Your task to perform on an android device: Empty the shopping cart on target.com. Search for "dell alienware" on target.com, select the first entry, add it to the cart, then select checkout. Image 0: 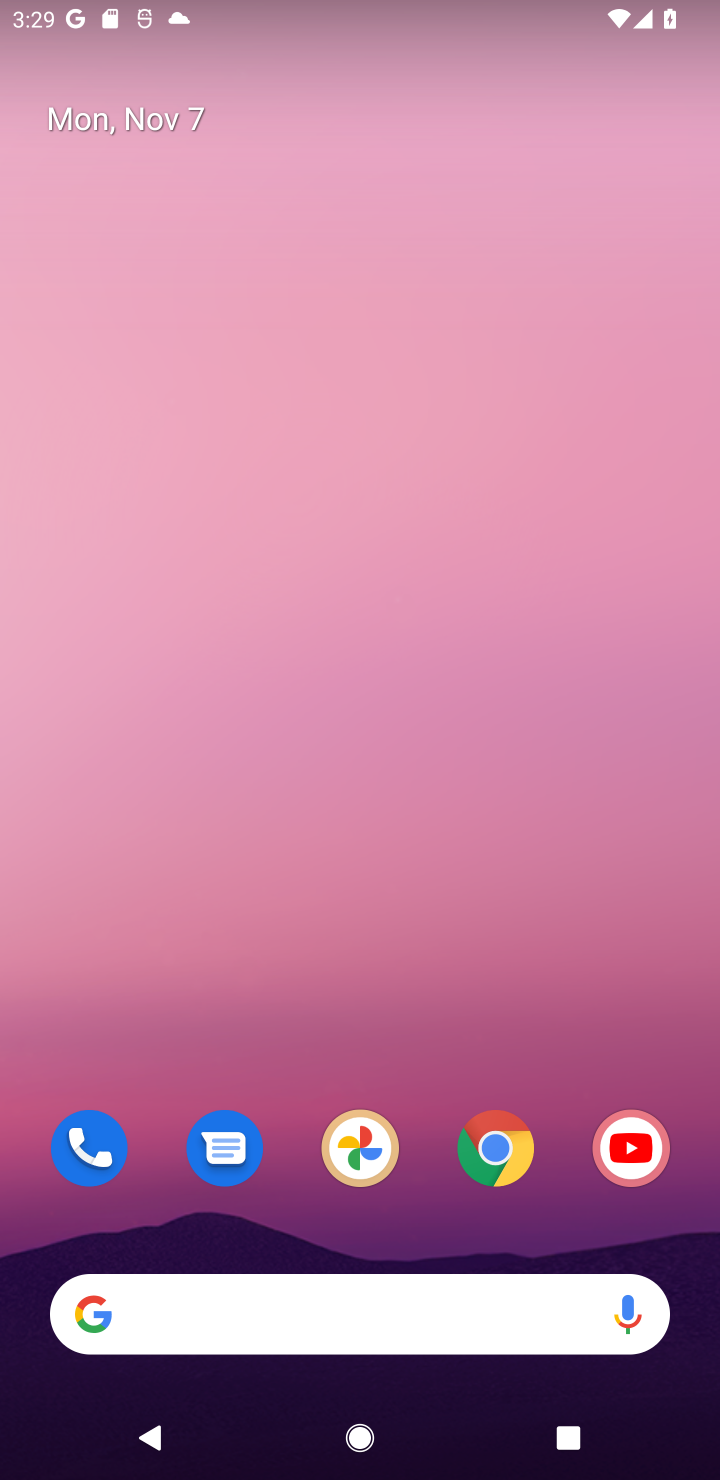
Step 0: drag from (358, 1066) to (402, 170)
Your task to perform on an android device: Empty the shopping cart on target.com. Search for "dell alienware" on target.com, select the first entry, add it to the cart, then select checkout. Image 1: 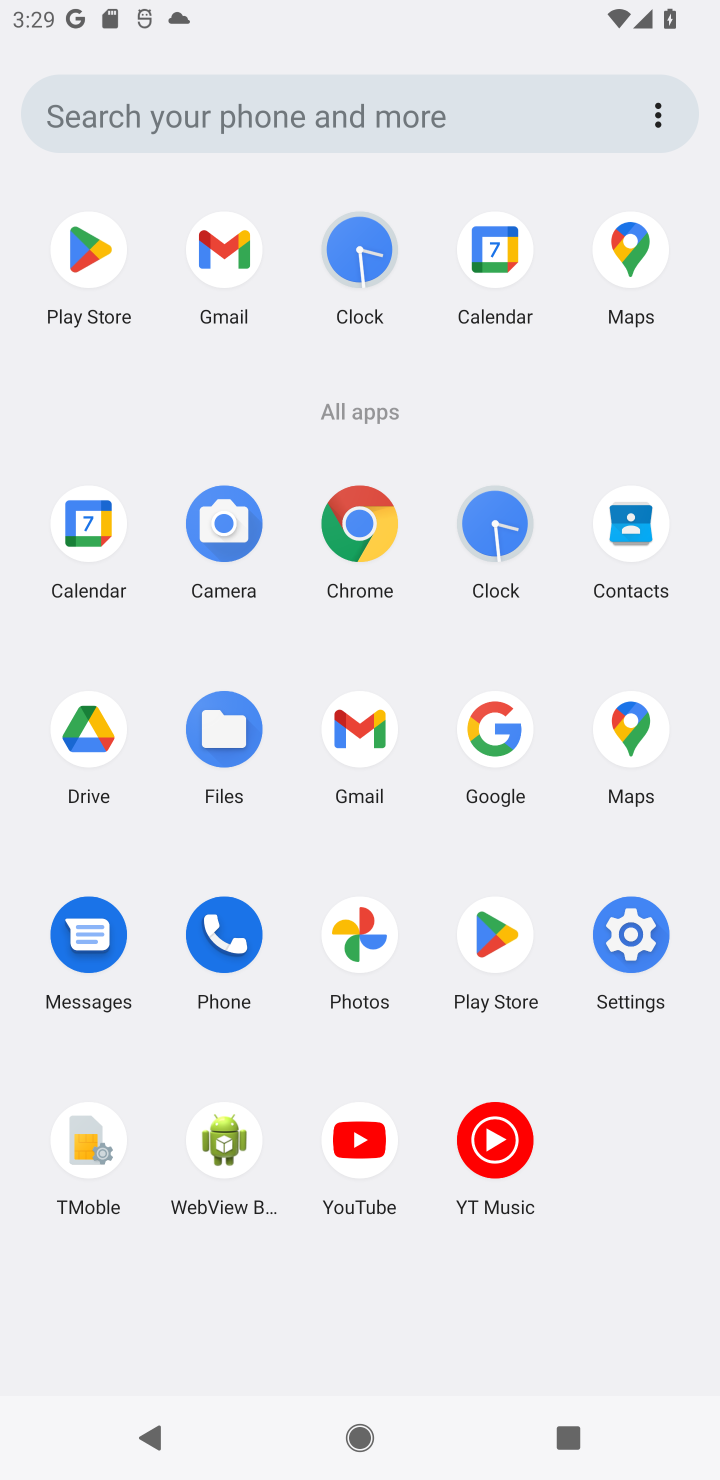
Step 1: click (374, 537)
Your task to perform on an android device: Empty the shopping cart on target.com. Search for "dell alienware" on target.com, select the first entry, add it to the cart, then select checkout. Image 2: 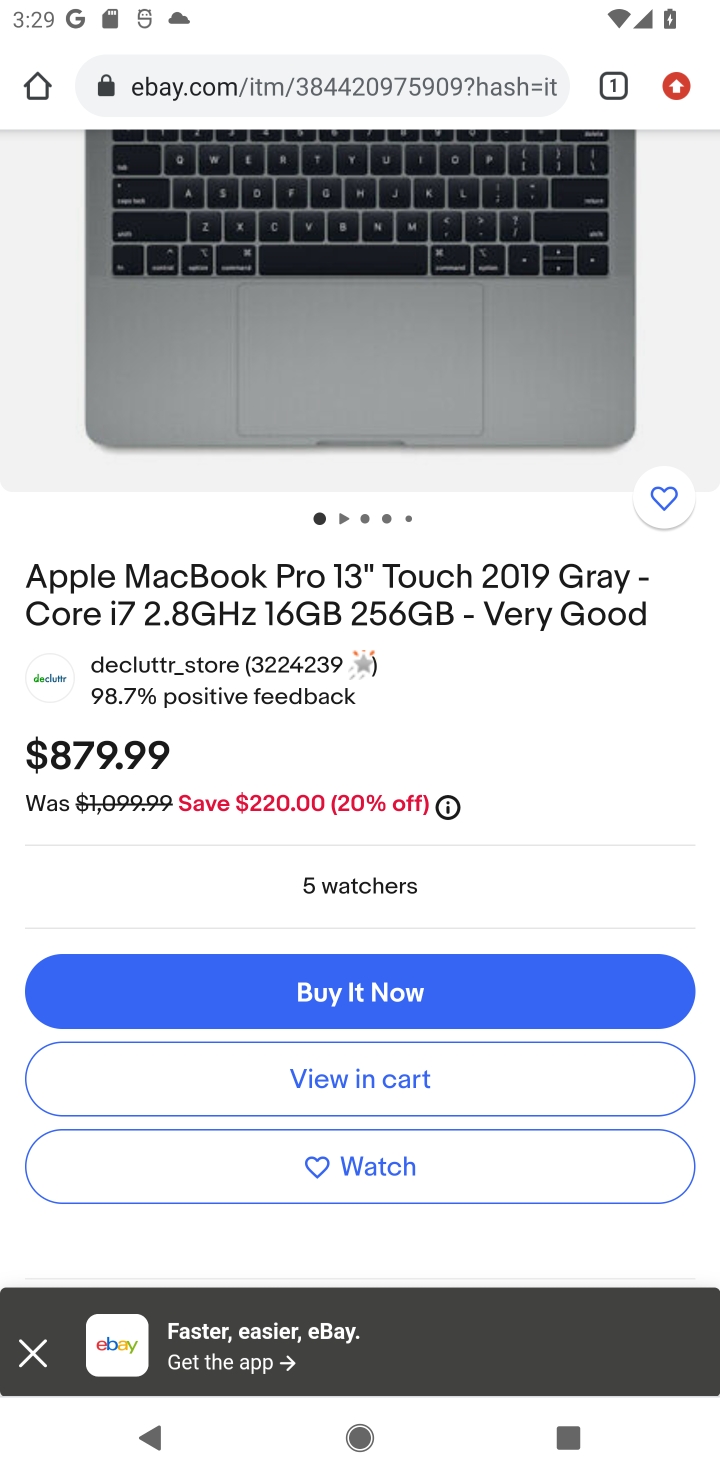
Step 2: click (266, 99)
Your task to perform on an android device: Empty the shopping cart on target.com. Search for "dell alienware" on target.com, select the first entry, add it to the cart, then select checkout. Image 3: 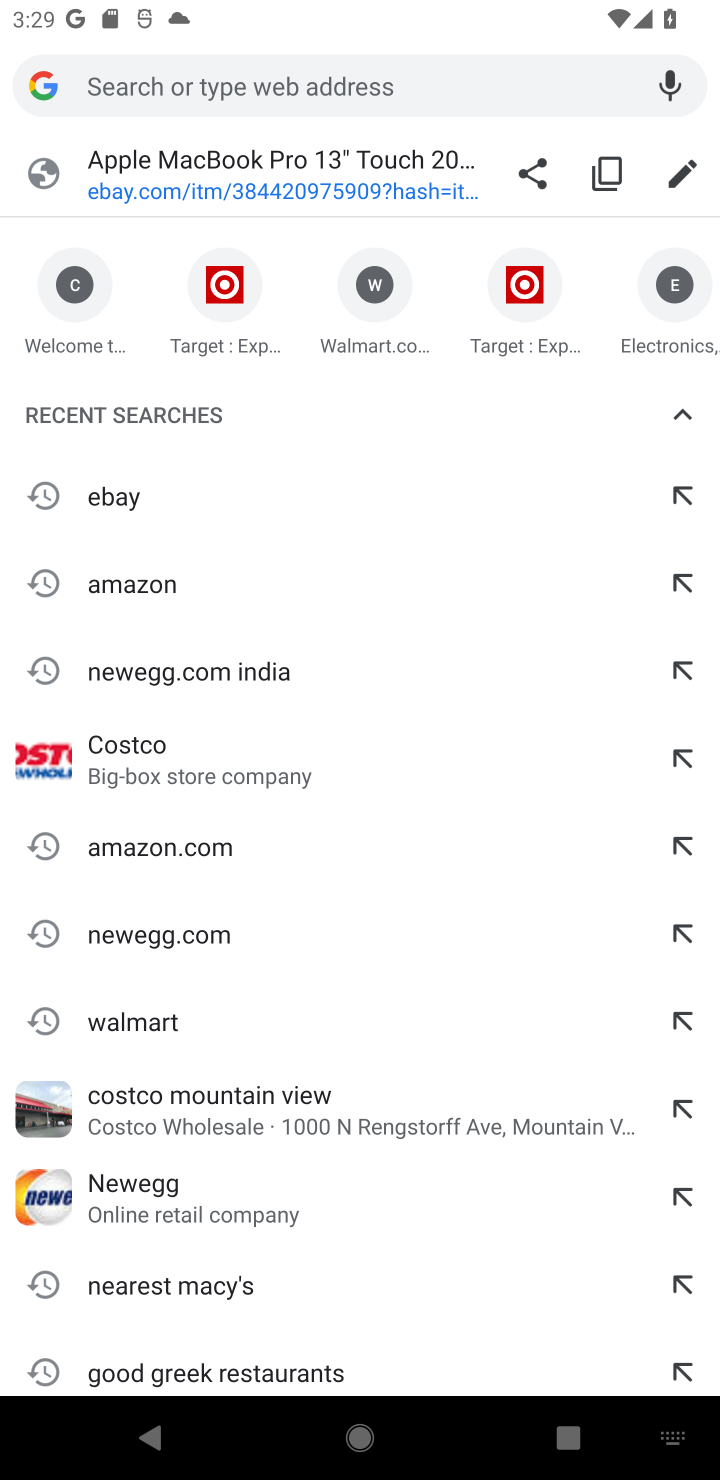
Step 3: type "target.com"
Your task to perform on an android device: Empty the shopping cart on target.com. Search for "dell alienware" on target.com, select the first entry, add it to the cart, then select checkout. Image 4: 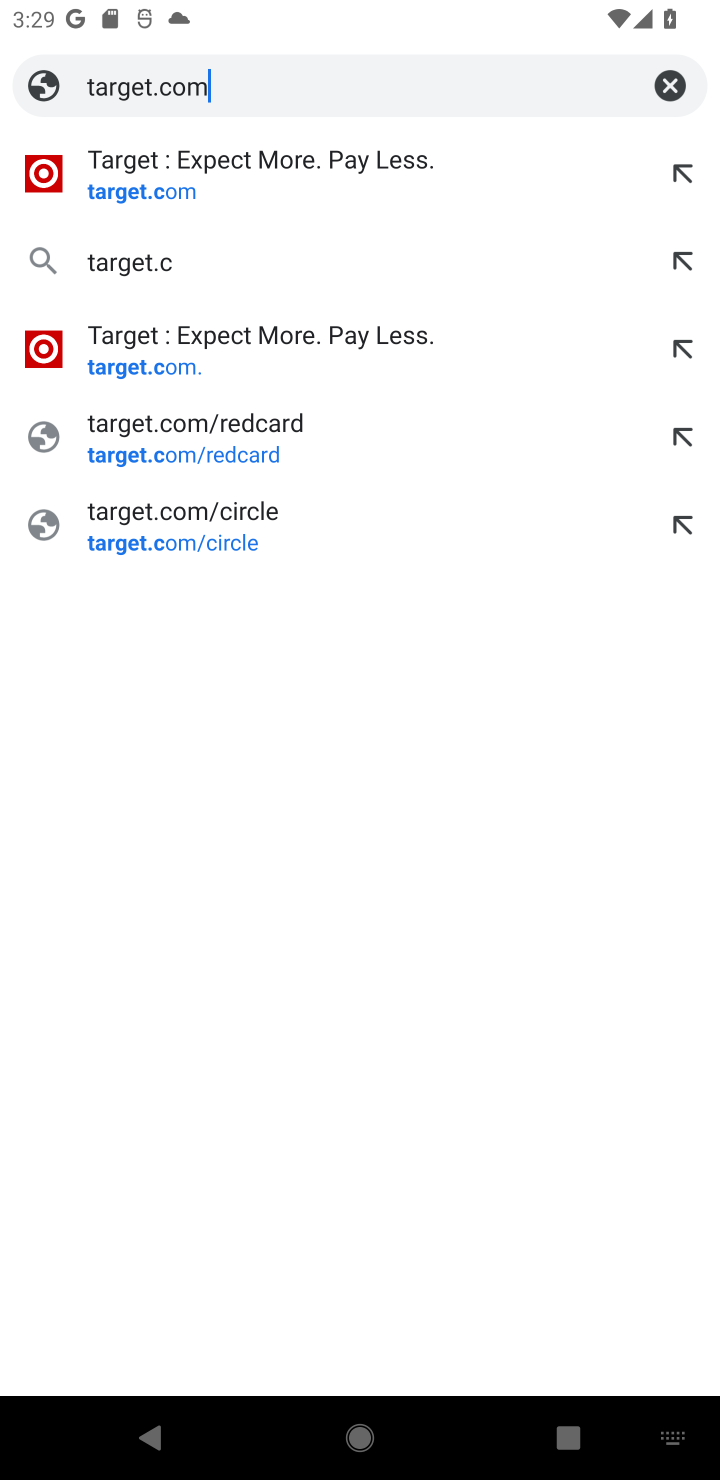
Step 4: press enter
Your task to perform on an android device: Empty the shopping cart on target.com. Search for "dell alienware" on target.com, select the first entry, add it to the cart, then select checkout. Image 5: 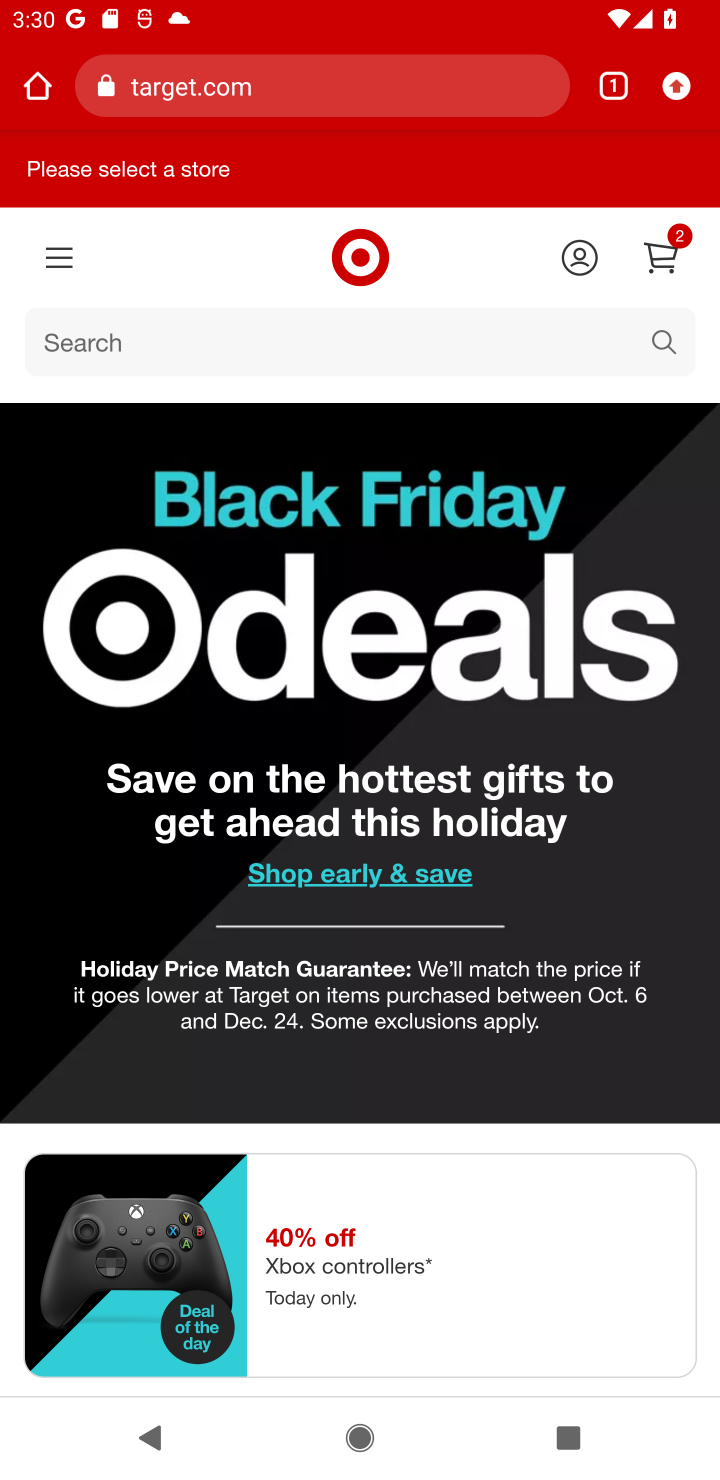
Step 5: click (659, 265)
Your task to perform on an android device: Empty the shopping cart on target.com. Search for "dell alienware" on target.com, select the first entry, add it to the cart, then select checkout. Image 6: 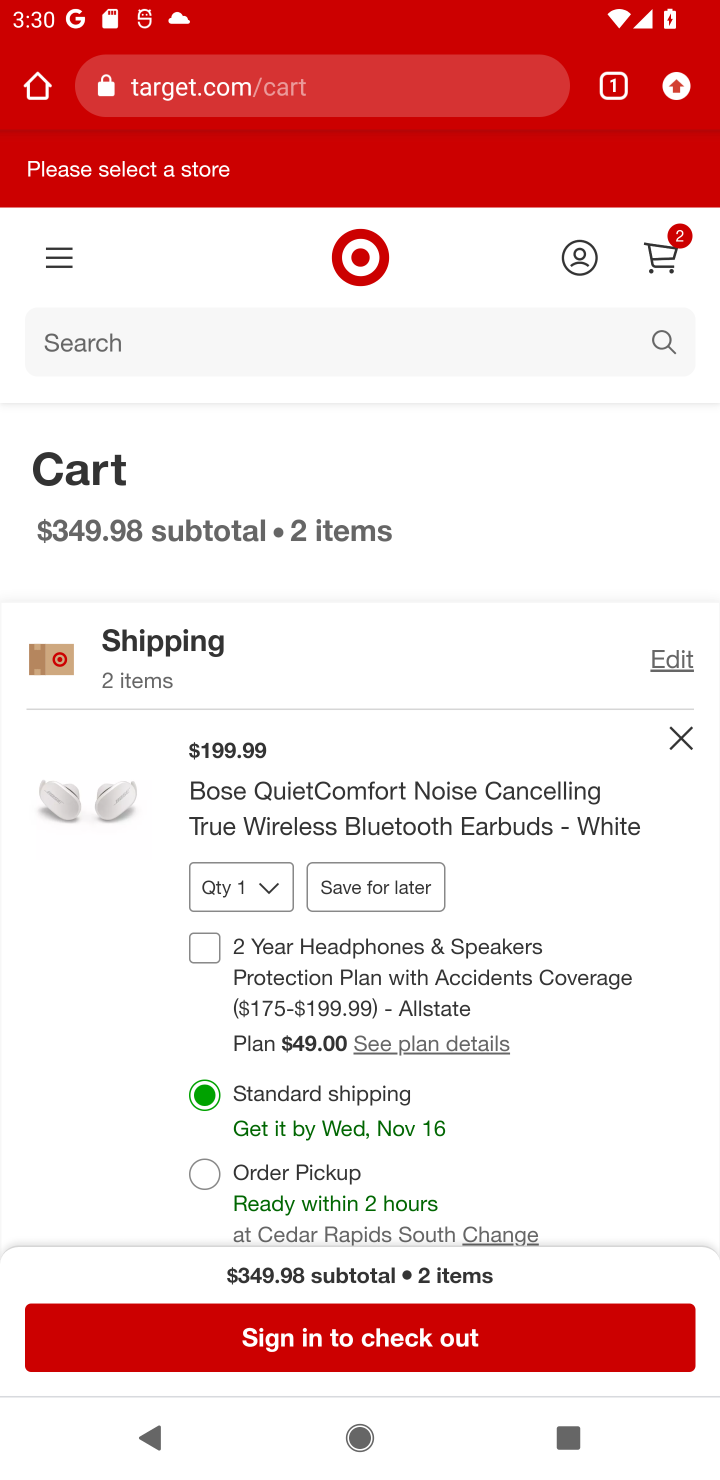
Step 6: drag from (417, 867) to (461, 545)
Your task to perform on an android device: Empty the shopping cart on target.com. Search for "dell alienware" on target.com, select the first entry, add it to the cart, then select checkout. Image 7: 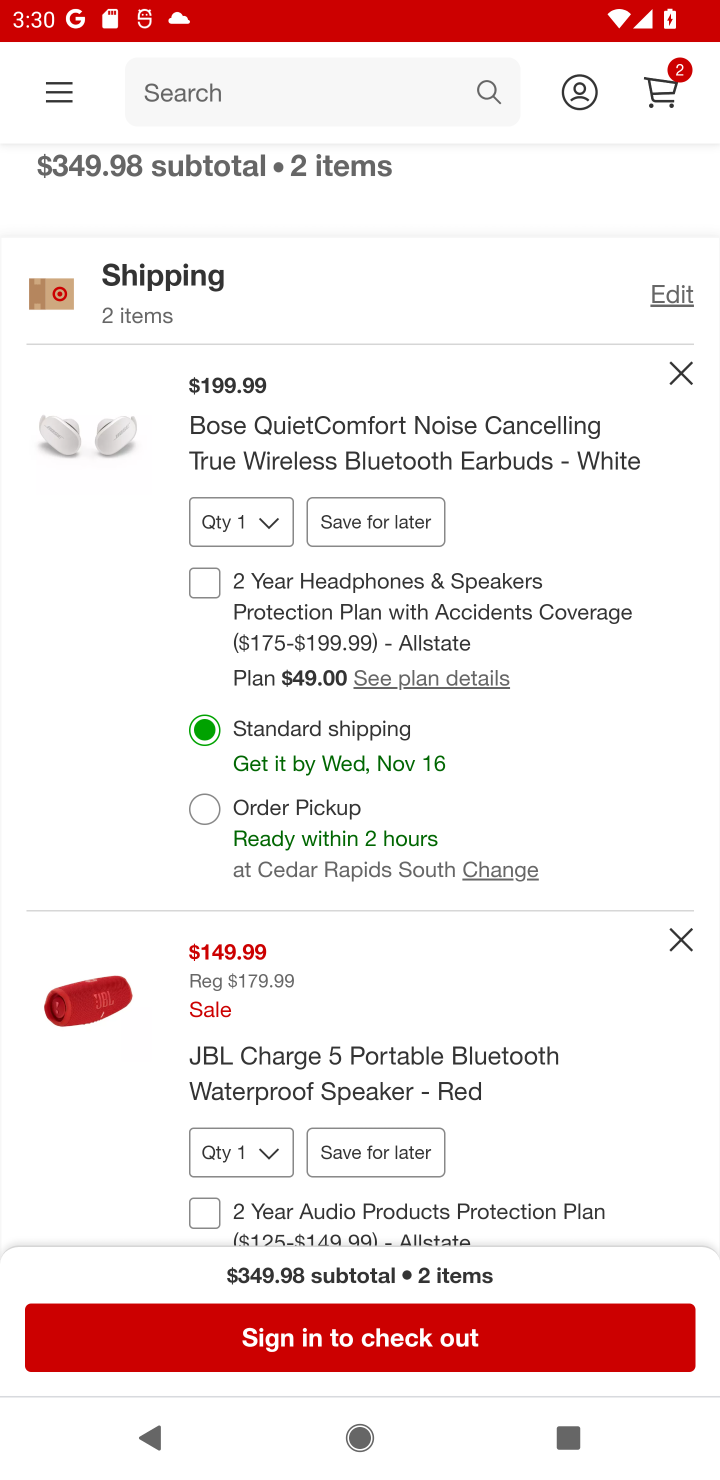
Step 7: drag from (449, 600) to (476, 837)
Your task to perform on an android device: Empty the shopping cart on target.com. Search for "dell alienware" on target.com, select the first entry, add it to the cart, then select checkout. Image 8: 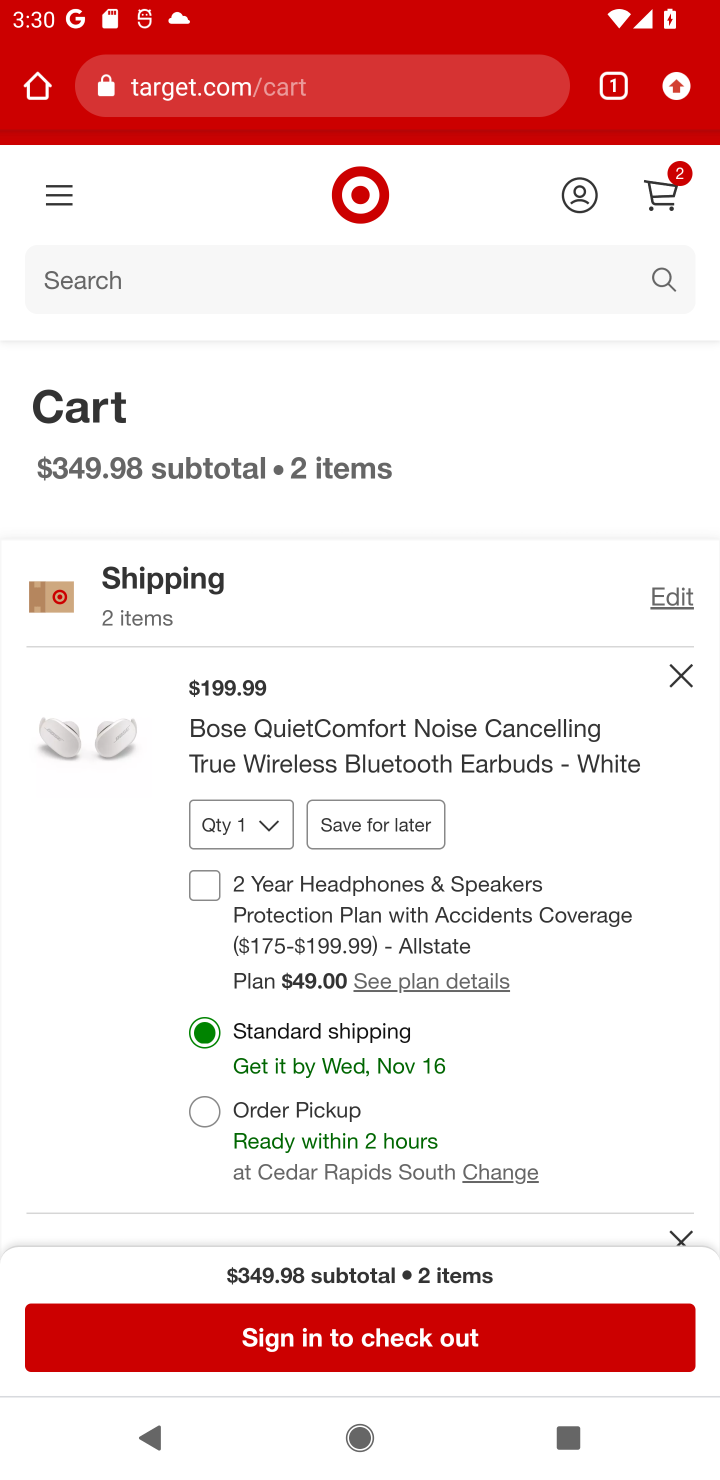
Step 8: click (696, 680)
Your task to perform on an android device: Empty the shopping cart on target.com. Search for "dell alienware" on target.com, select the first entry, add it to the cart, then select checkout. Image 9: 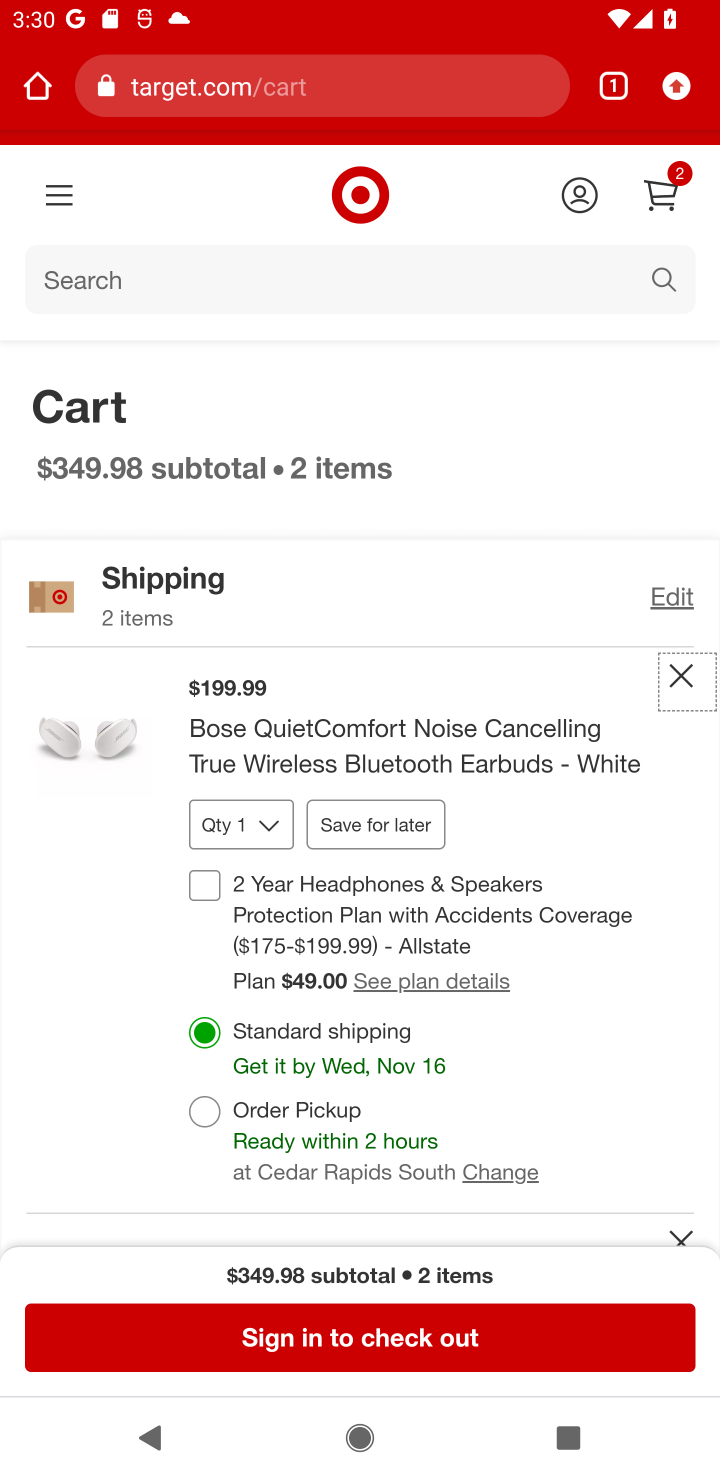
Step 9: click (676, 672)
Your task to perform on an android device: Empty the shopping cart on target.com. Search for "dell alienware" on target.com, select the first entry, add it to the cart, then select checkout. Image 10: 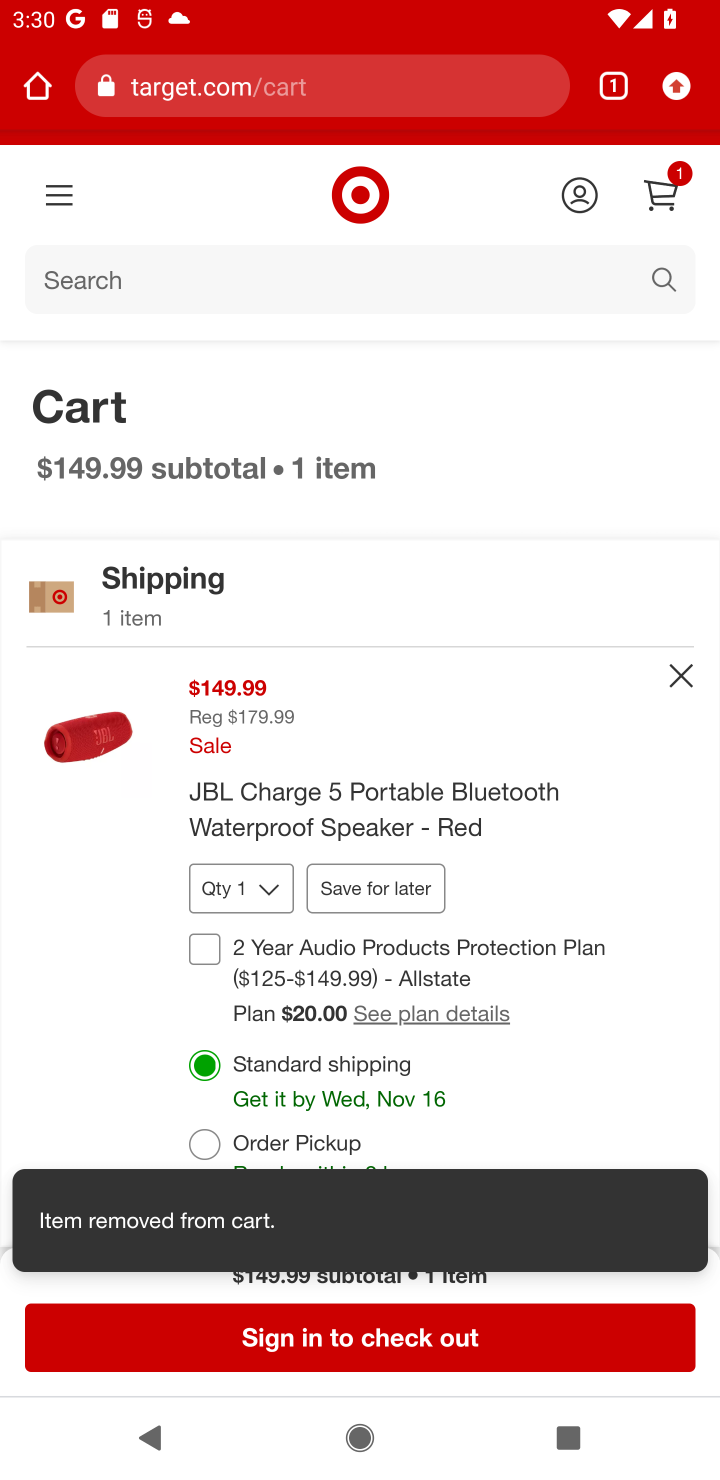
Step 10: click (689, 666)
Your task to perform on an android device: Empty the shopping cart on target.com. Search for "dell alienware" on target.com, select the first entry, add it to the cart, then select checkout. Image 11: 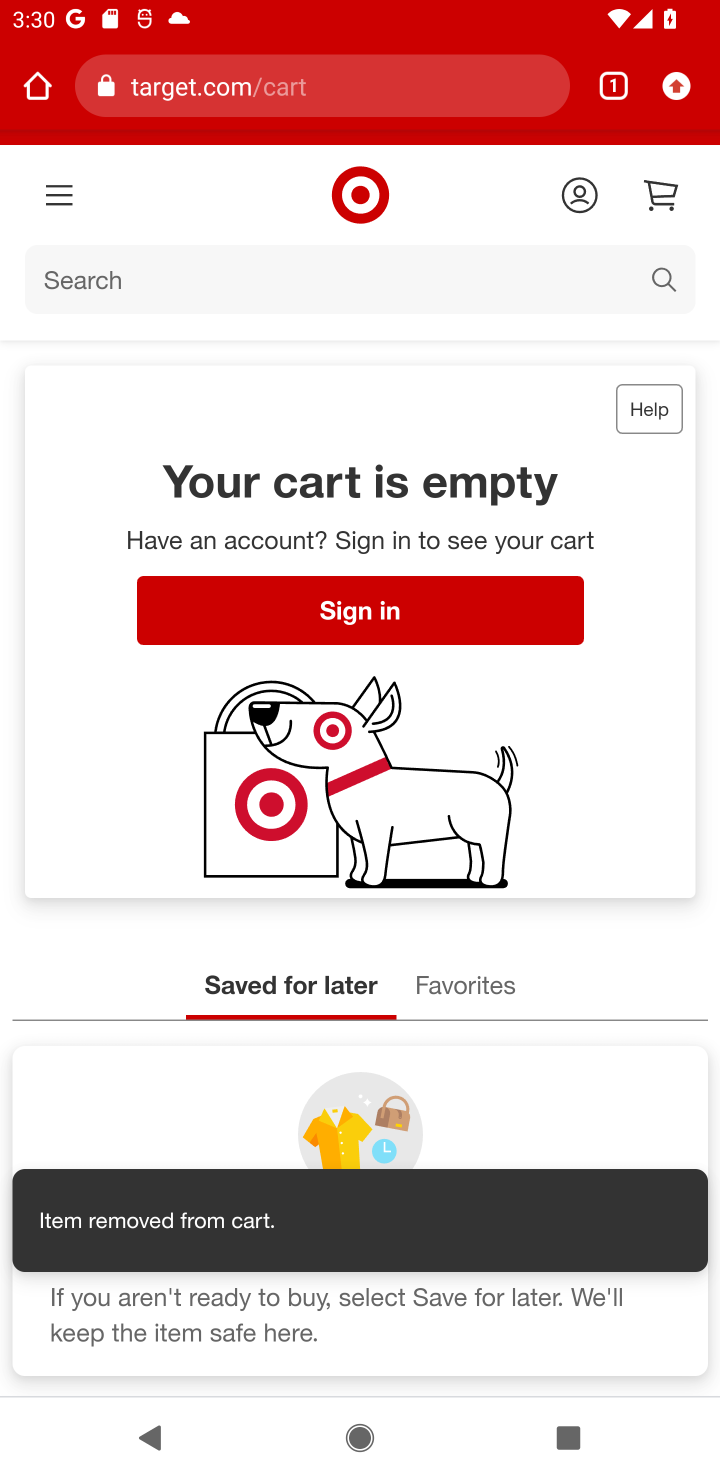
Step 11: click (312, 279)
Your task to perform on an android device: Empty the shopping cart on target.com. Search for "dell alienware" on target.com, select the first entry, add it to the cart, then select checkout. Image 12: 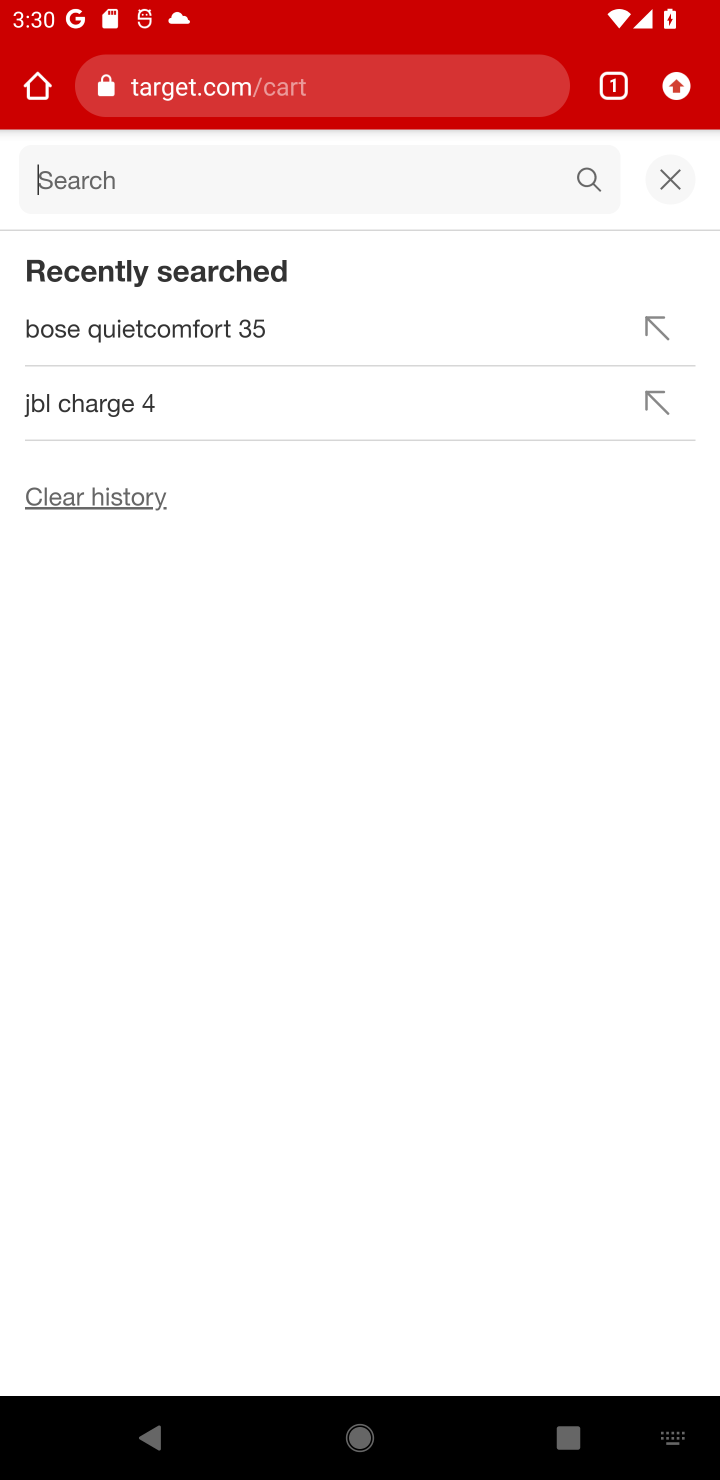
Step 12: type "dell alienware"
Your task to perform on an android device: Empty the shopping cart on target.com. Search for "dell alienware" on target.com, select the first entry, add it to the cart, then select checkout. Image 13: 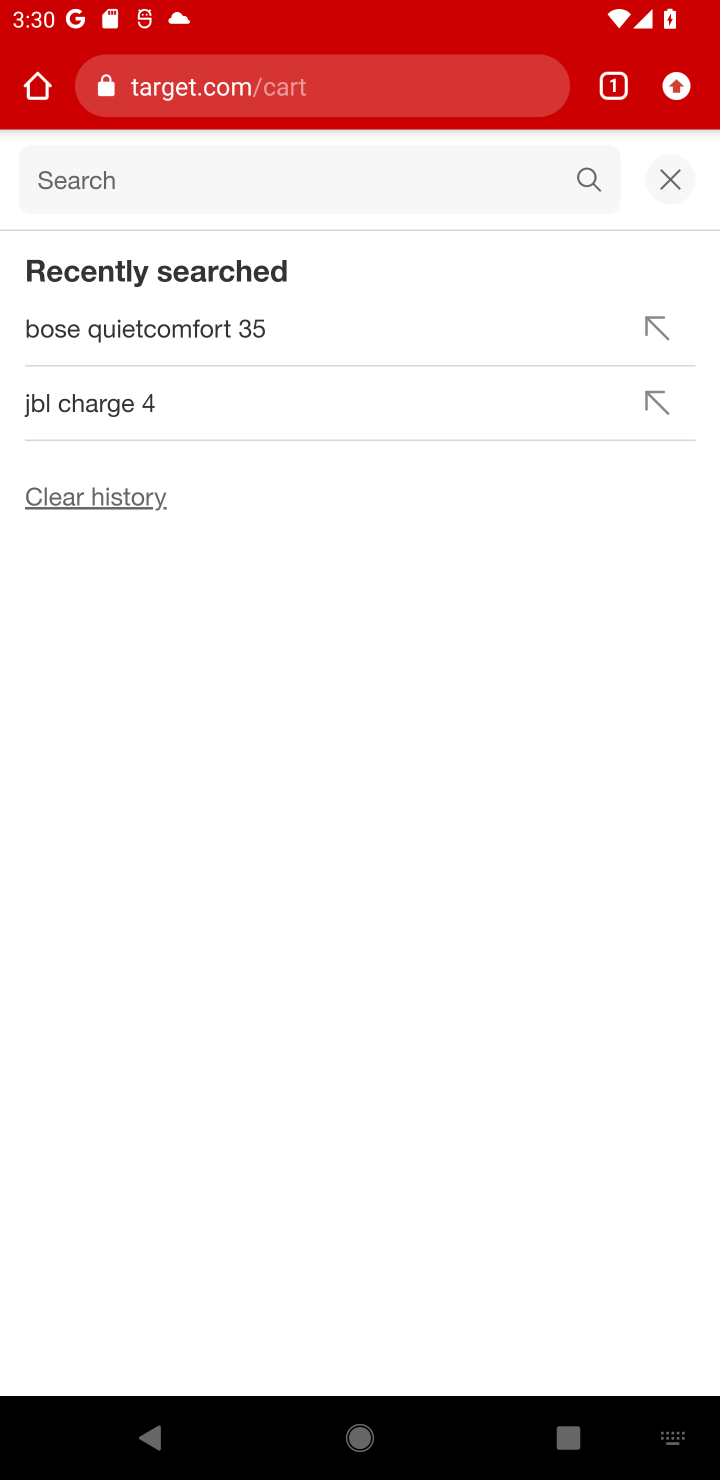
Step 13: press enter
Your task to perform on an android device: Empty the shopping cart on target.com. Search for "dell alienware" on target.com, select the first entry, add it to the cart, then select checkout. Image 14: 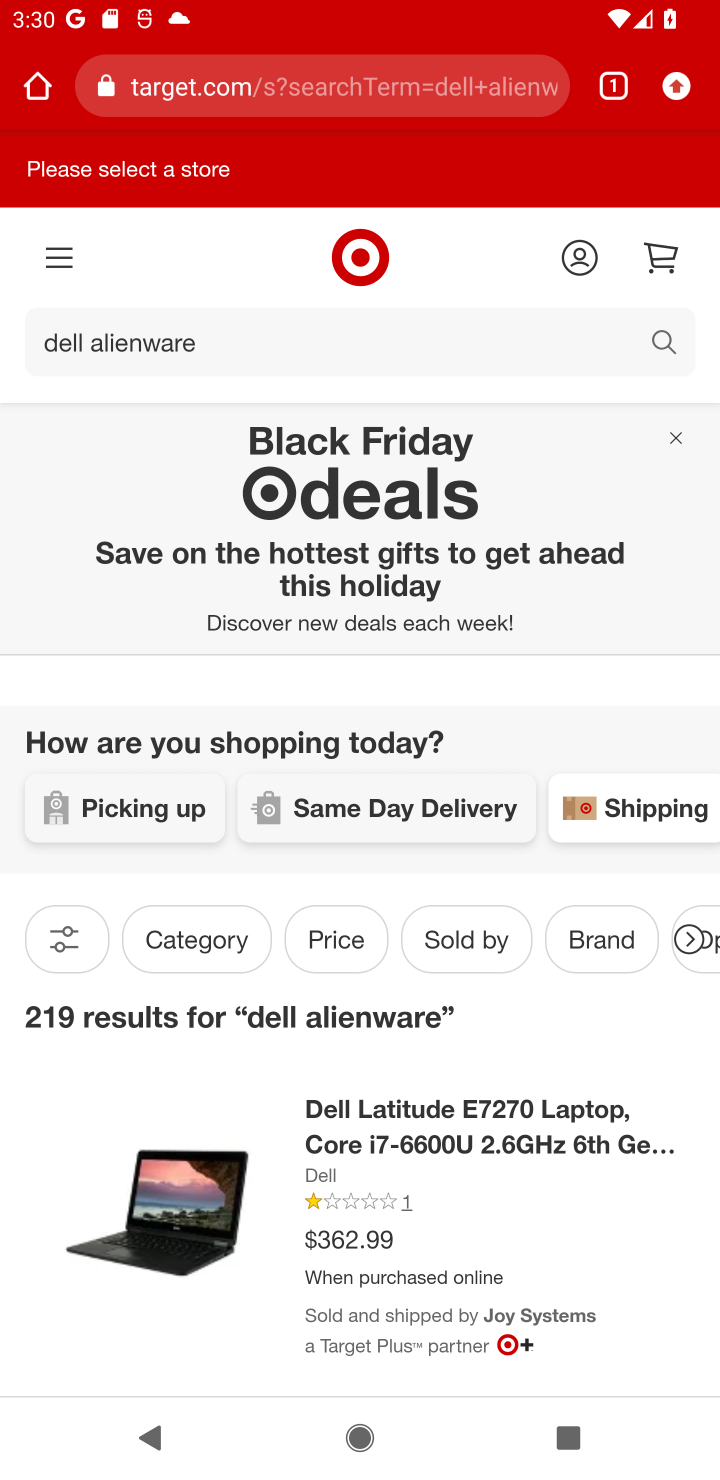
Step 14: drag from (466, 1185) to (530, 546)
Your task to perform on an android device: Empty the shopping cart on target.com. Search for "dell alienware" on target.com, select the first entry, add it to the cart, then select checkout. Image 15: 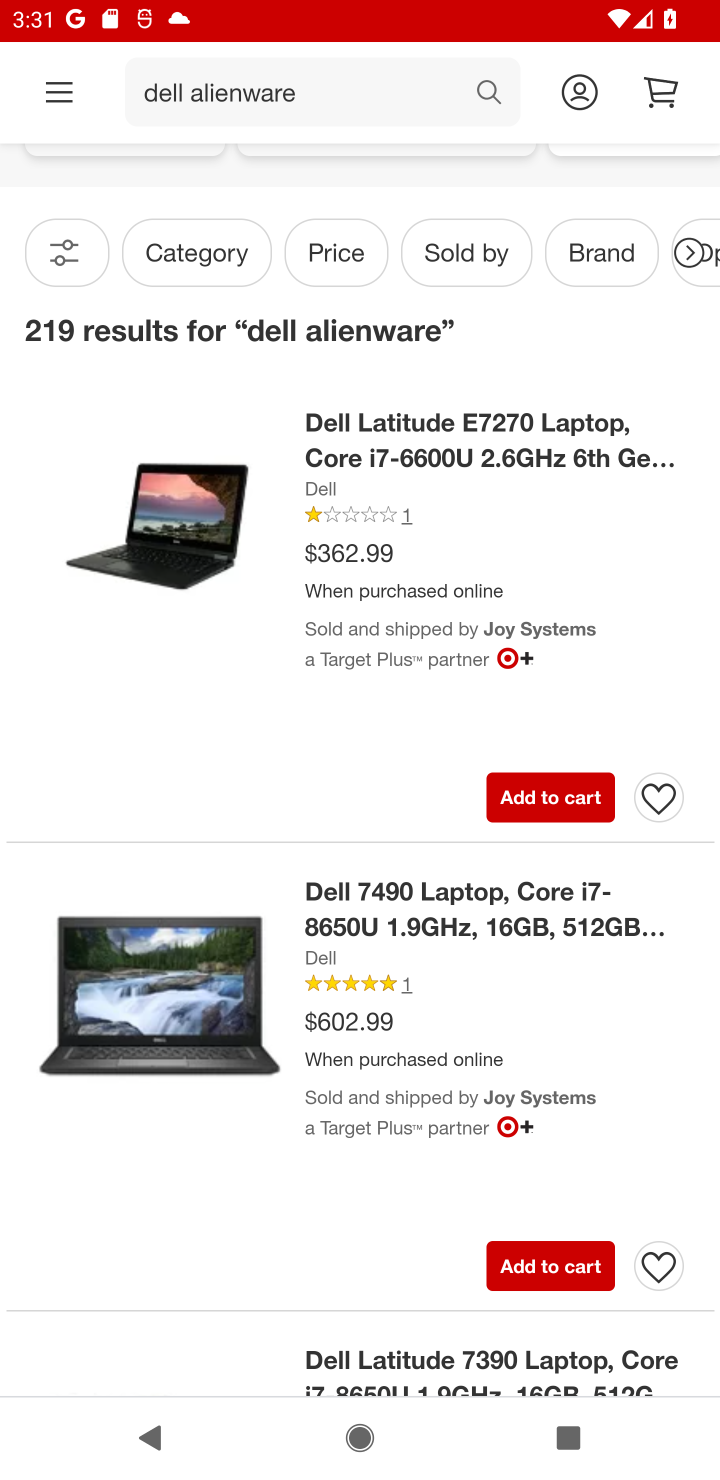
Step 15: click (534, 808)
Your task to perform on an android device: Empty the shopping cart on target.com. Search for "dell alienware" on target.com, select the first entry, add it to the cart, then select checkout. Image 16: 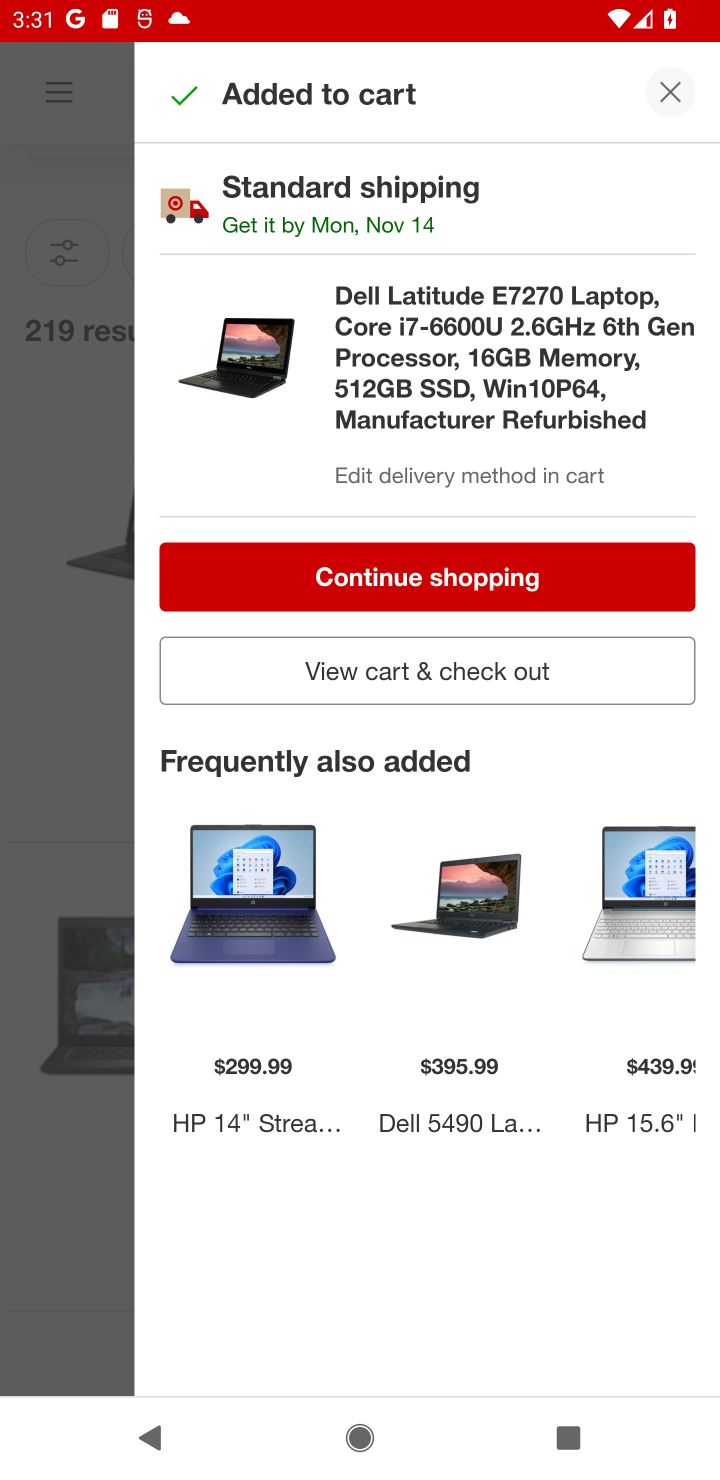
Step 16: click (407, 690)
Your task to perform on an android device: Empty the shopping cart on target.com. Search for "dell alienware" on target.com, select the first entry, add it to the cart, then select checkout. Image 17: 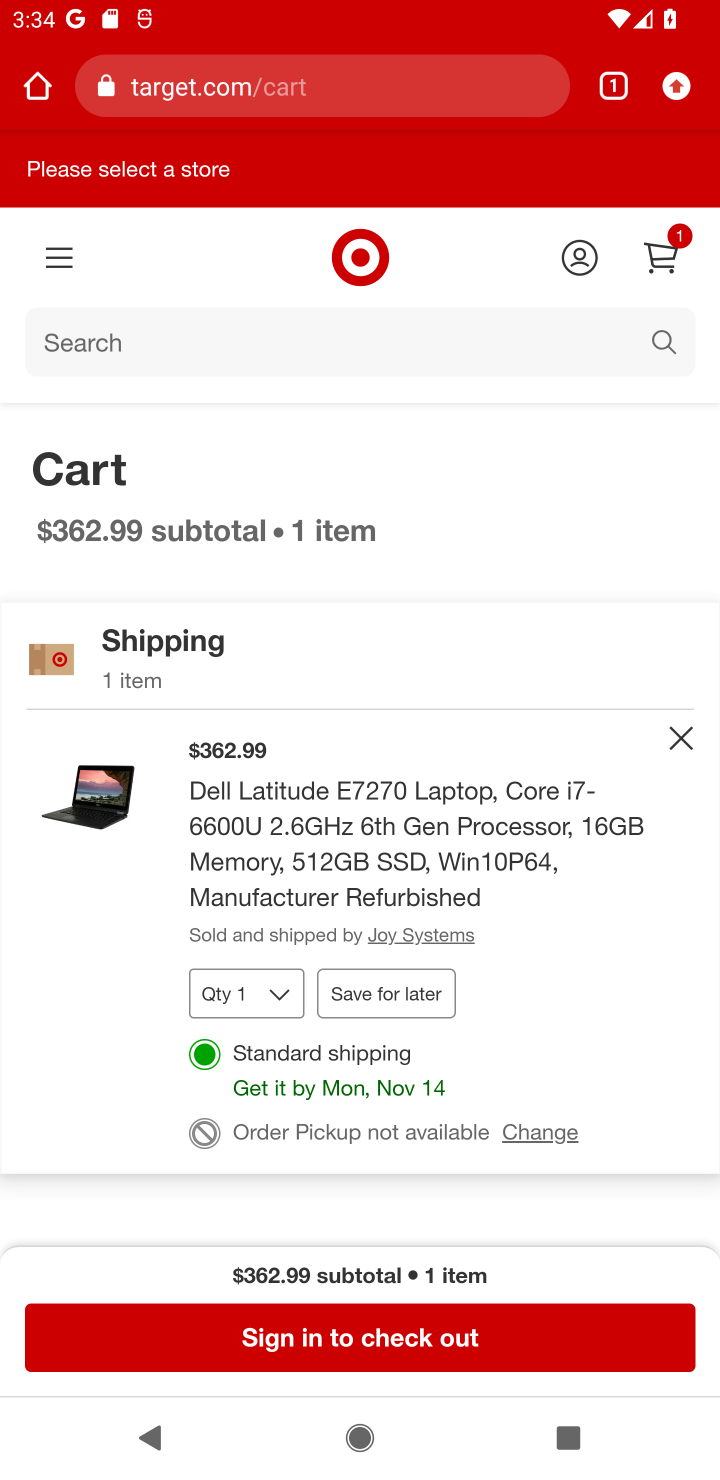
Step 17: task complete